Your task to perform on an android device: Open Google Image 0: 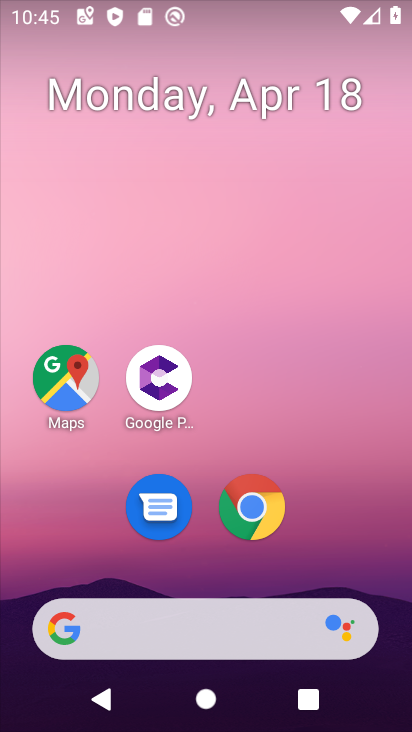
Step 0: drag from (325, 561) to (345, 64)
Your task to perform on an android device: Open Google Image 1: 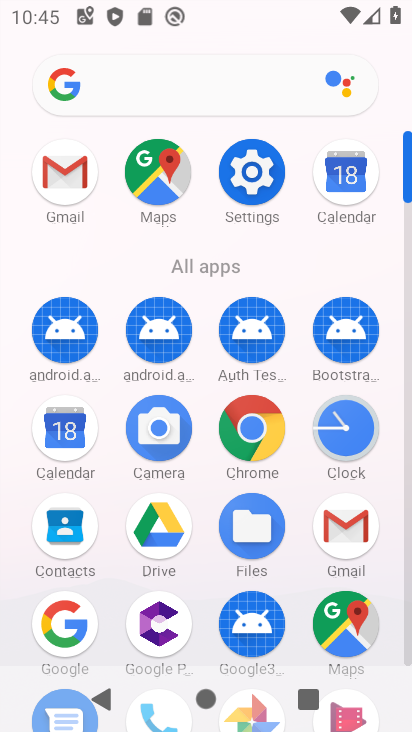
Step 1: click (78, 629)
Your task to perform on an android device: Open Google Image 2: 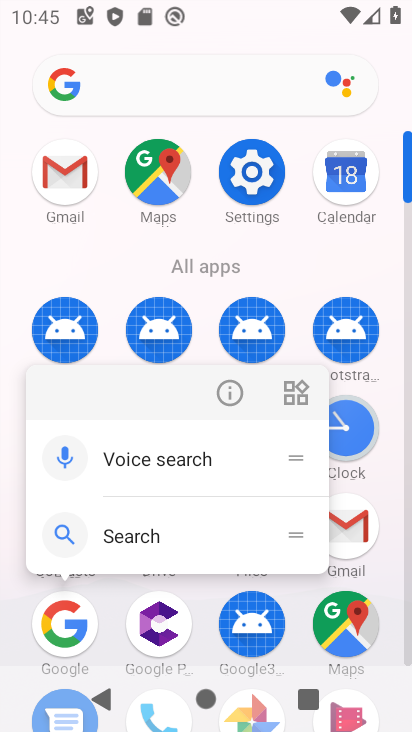
Step 2: click (78, 629)
Your task to perform on an android device: Open Google Image 3: 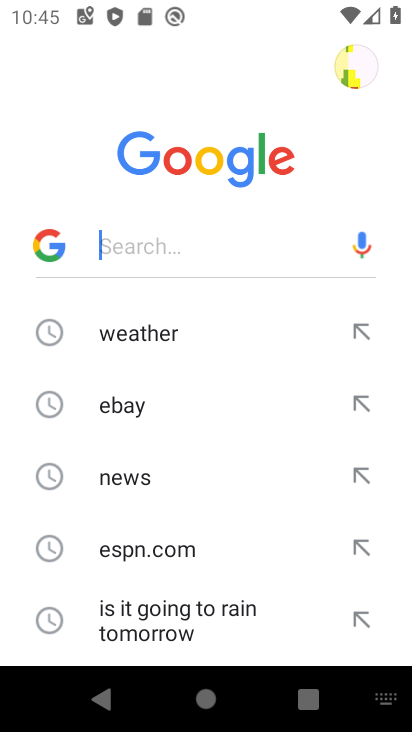
Step 3: task complete